Your task to perform on an android device: open device folders in google photos Image 0: 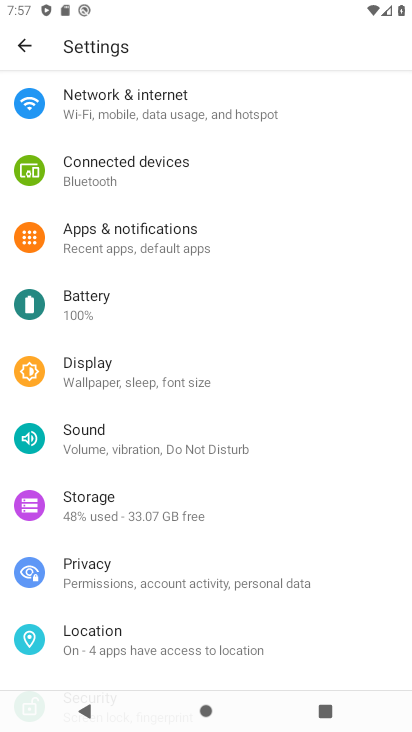
Step 0: press home button
Your task to perform on an android device: open device folders in google photos Image 1: 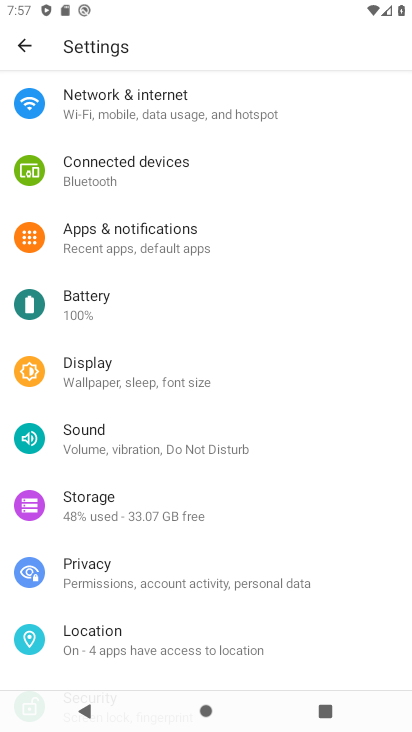
Step 1: press home button
Your task to perform on an android device: open device folders in google photos Image 2: 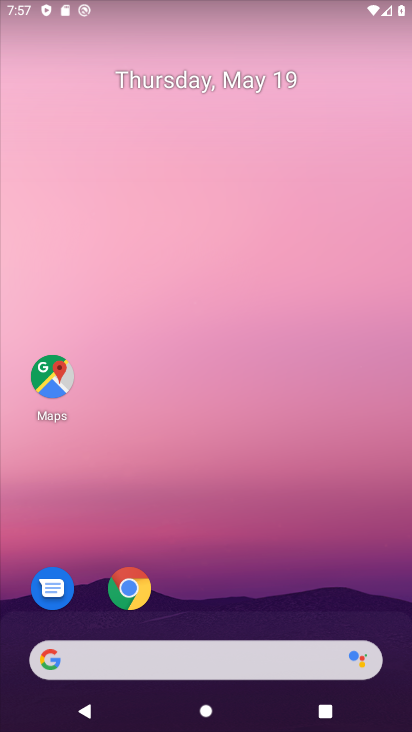
Step 2: drag from (234, 702) to (207, 208)
Your task to perform on an android device: open device folders in google photos Image 3: 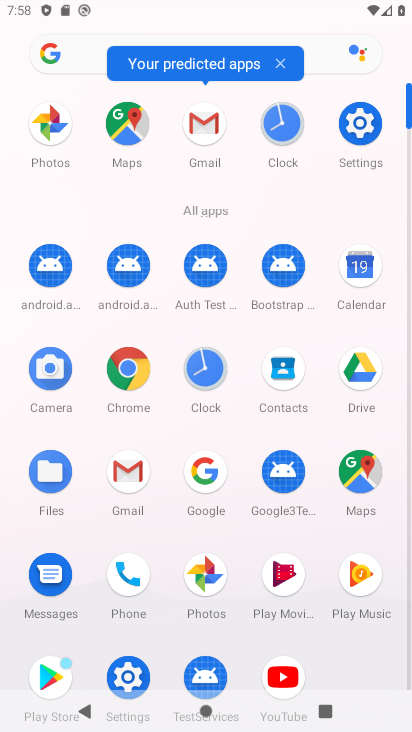
Step 3: click (209, 572)
Your task to perform on an android device: open device folders in google photos Image 4: 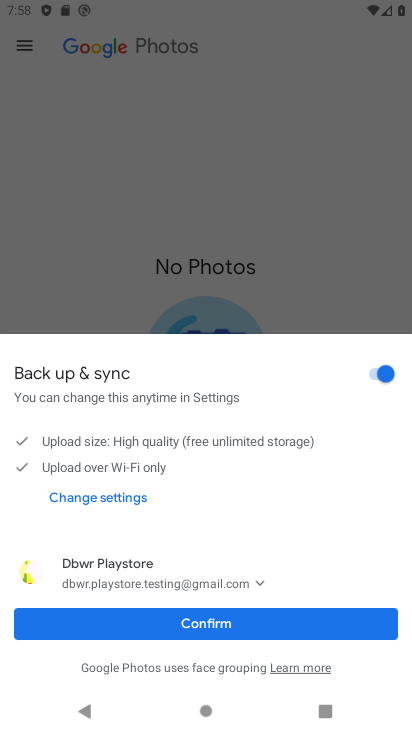
Step 4: click (201, 628)
Your task to perform on an android device: open device folders in google photos Image 5: 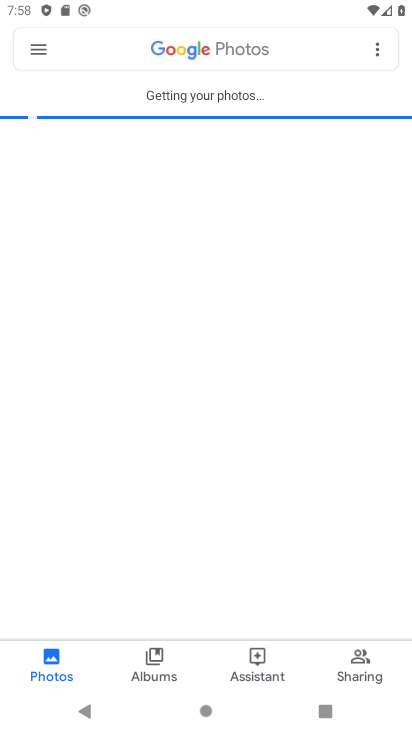
Step 5: click (18, 43)
Your task to perform on an android device: open device folders in google photos Image 6: 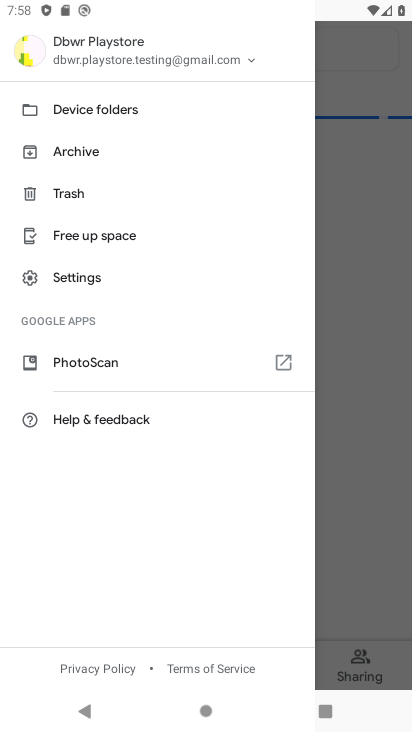
Step 6: click (82, 111)
Your task to perform on an android device: open device folders in google photos Image 7: 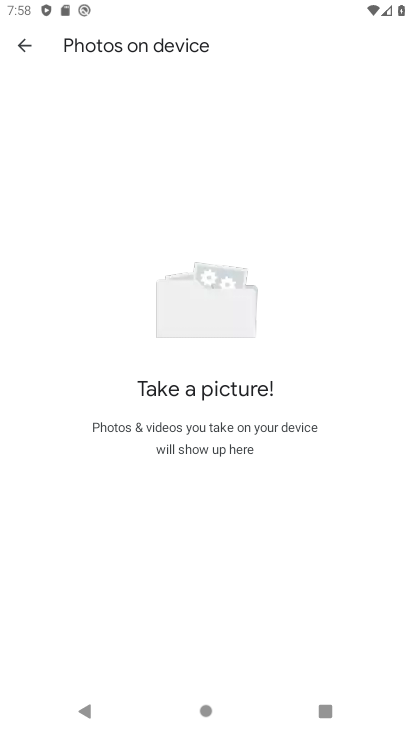
Step 7: task complete